Your task to perform on an android device: Open Reddit.com Image 0: 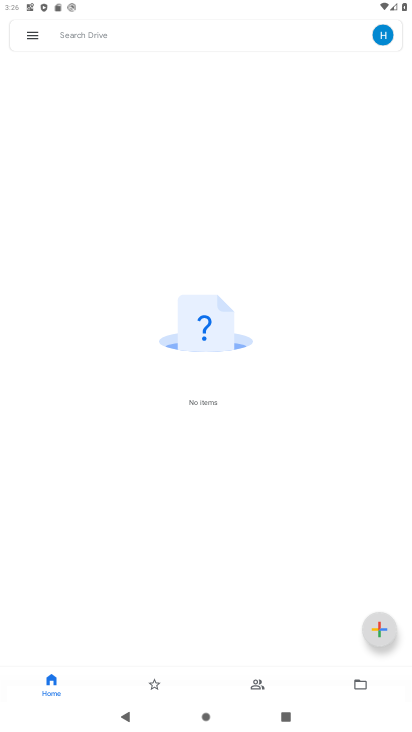
Step 0: press home button
Your task to perform on an android device: Open Reddit.com Image 1: 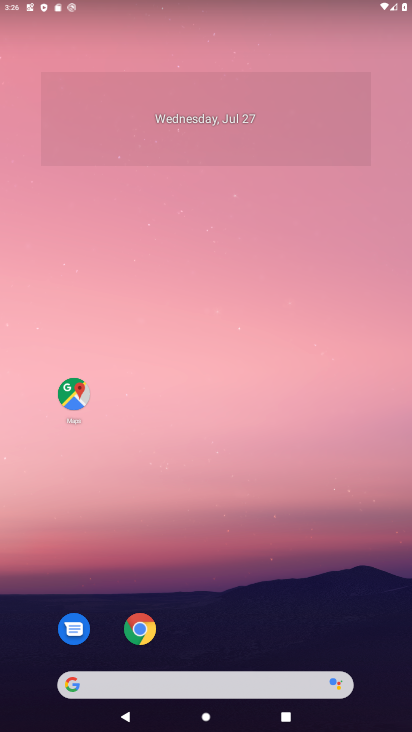
Step 1: drag from (282, 591) to (246, 162)
Your task to perform on an android device: Open Reddit.com Image 2: 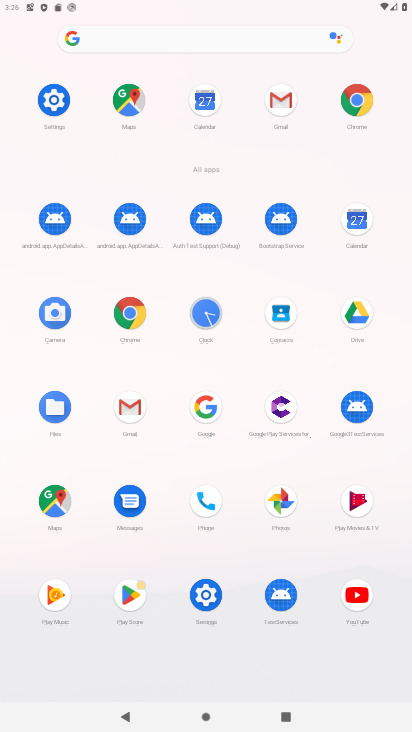
Step 2: click (360, 100)
Your task to perform on an android device: Open Reddit.com Image 3: 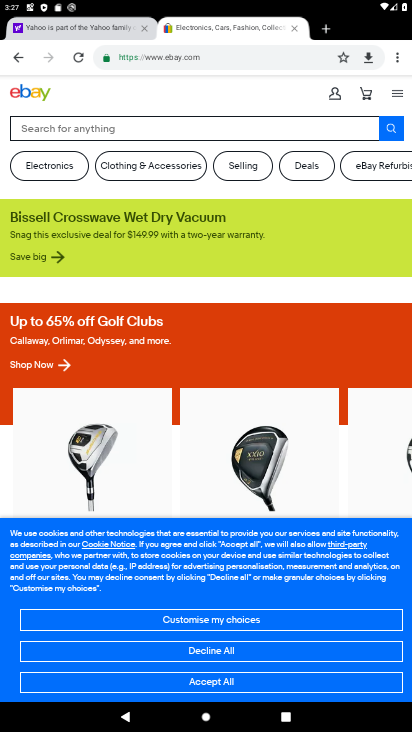
Step 3: click (204, 57)
Your task to perform on an android device: Open Reddit.com Image 4: 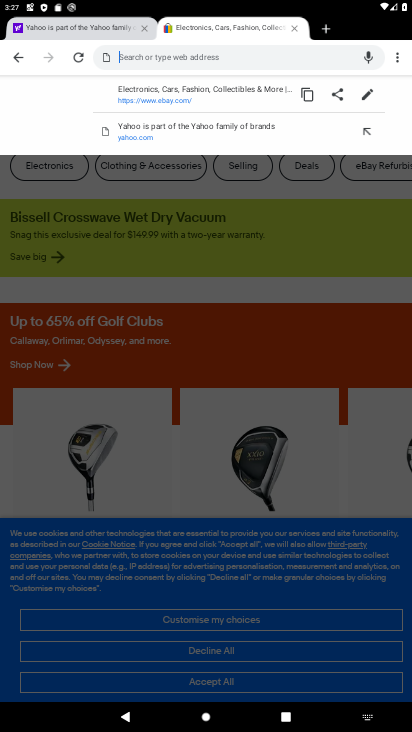
Step 4: type "reddit.com"
Your task to perform on an android device: Open Reddit.com Image 5: 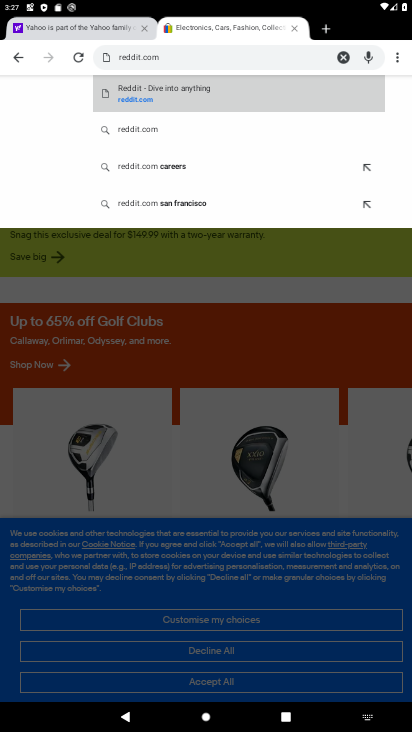
Step 5: click (190, 90)
Your task to perform on an android device: Open Reddit.com Image 6: 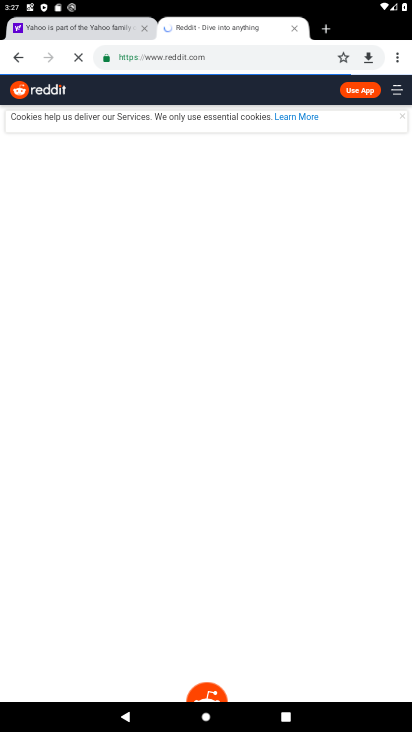
Step 6: task complete